Your task to perform on an android device: What is the news today? Image 0: 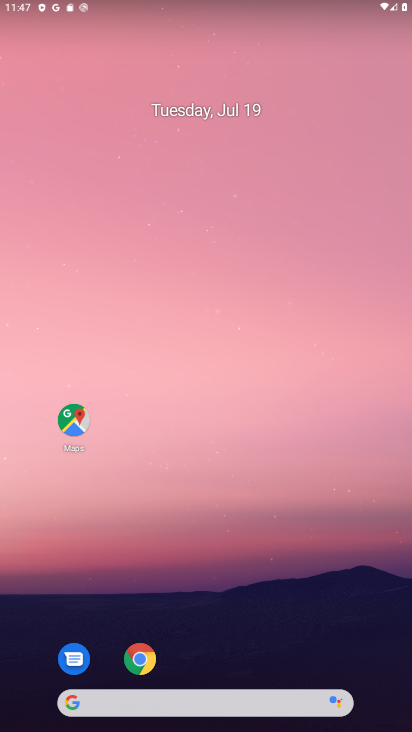
Step 0: press home button
Your task to perform on an android device: What is the news today? Image 1: 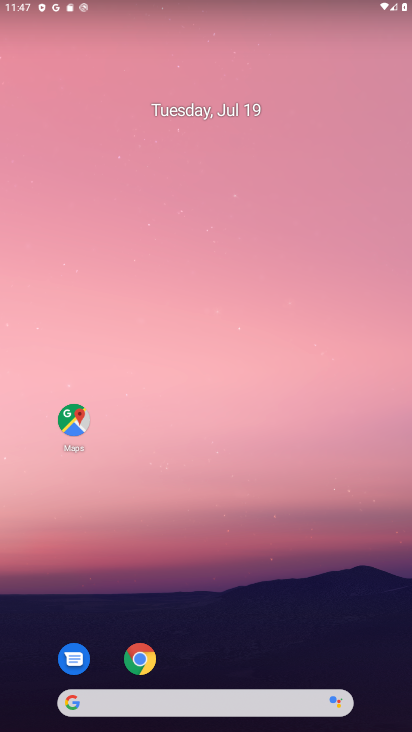
Step 1: task complete